Your task to perform on an android device: move an email to a new category in the gmail app Image 0: 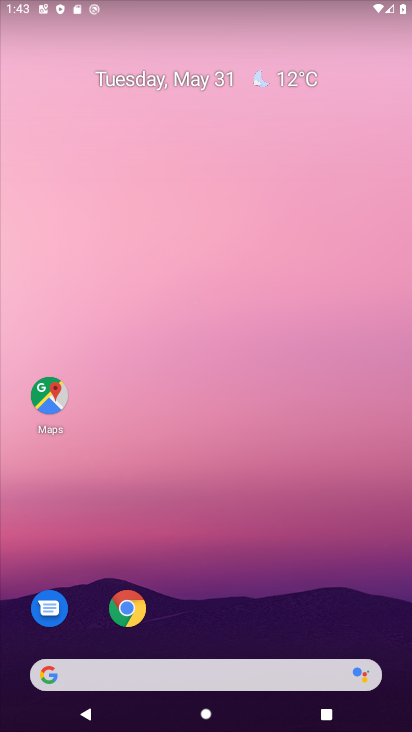
Step 0: drag from (302, 535) to (293, 209)
Your task to perform on an android device: move an email to a new category in the gmail app Image 1: 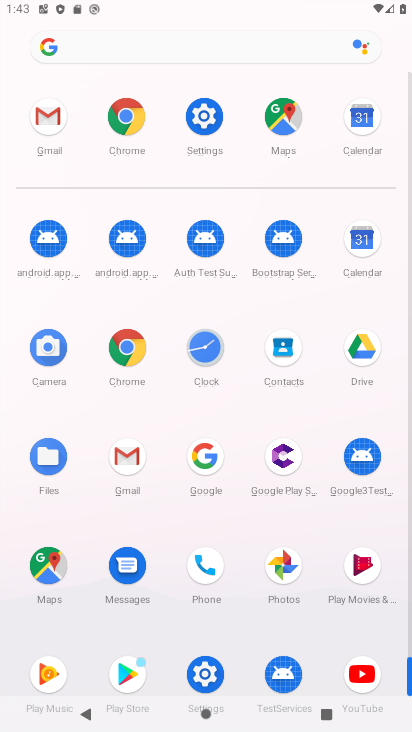
Step 1: click (129, 479)
Your task to perform on an android device: move an email to a new category in the gmail app Image 2: 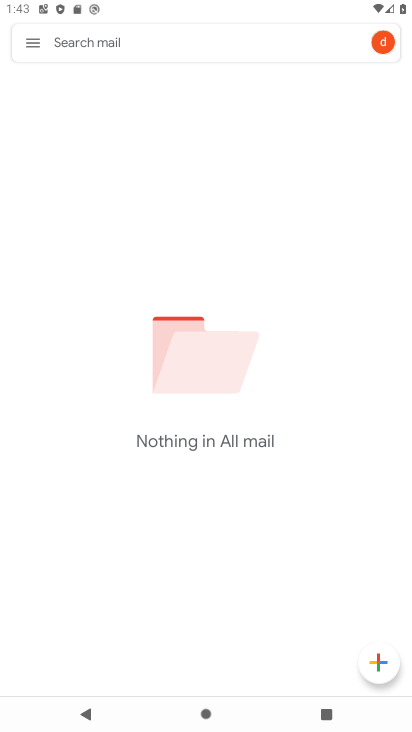
Step 2: task complete